Your task to perform on an android device: Show me popular games on the Play Store Image 0: 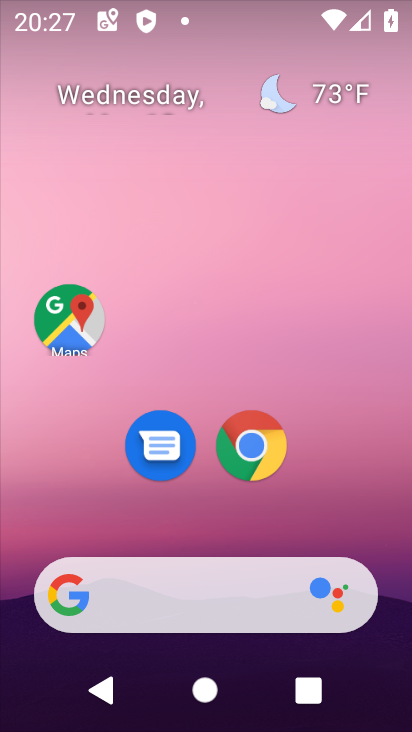
Step 0: drag from (296, 514) to (297, 216)
Your task to perform on an android device: Show me popular games on the Play Store Image 1: 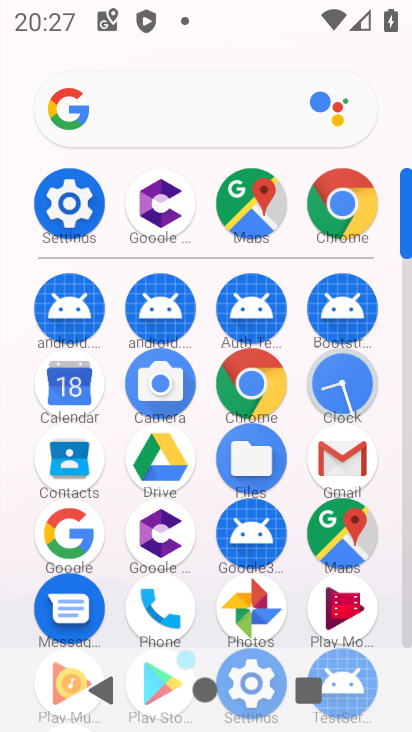
Step 1: drag from (211, 583) to (205, 294)
Your task to perform on an android device: Show me popular games on the Play Store Image 2: 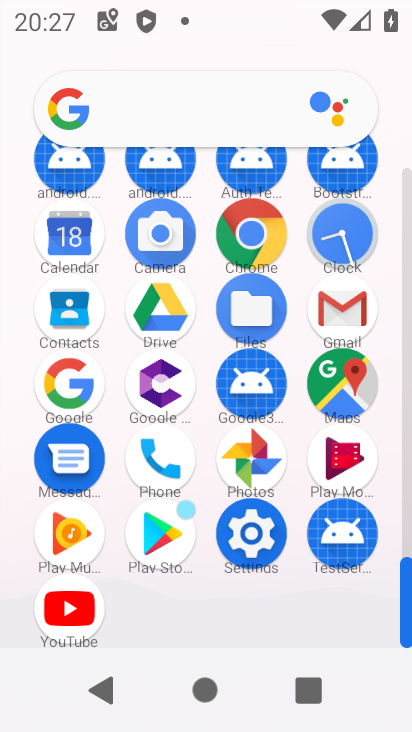
Step 2: click (160, 542)
Your task to perform on an android device: Show me popular games on the Play Store Image 3: 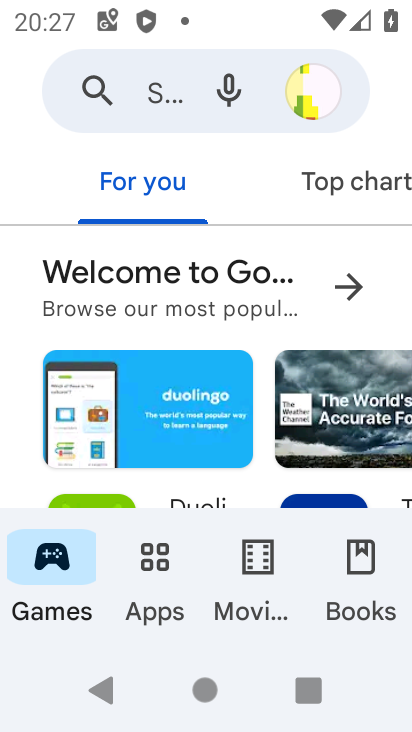
Step 3: task complete